Your task to perform on an android device: Open Yahoo.com Image 0: 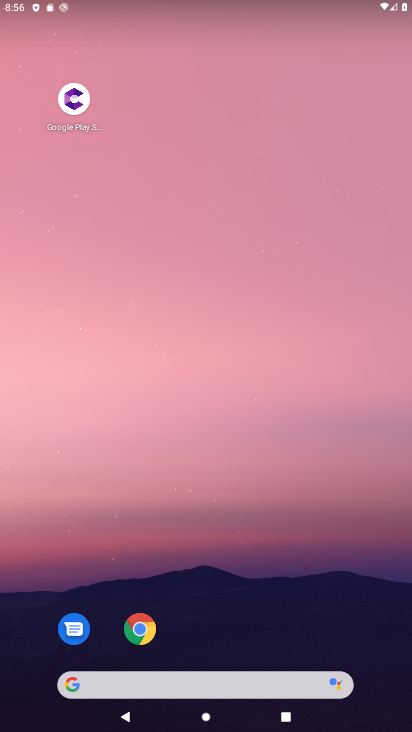
Step 0: drag from (271, 531) to (195, 29)
Your task to perform on an android device: Open Yahoo.com Image 1: 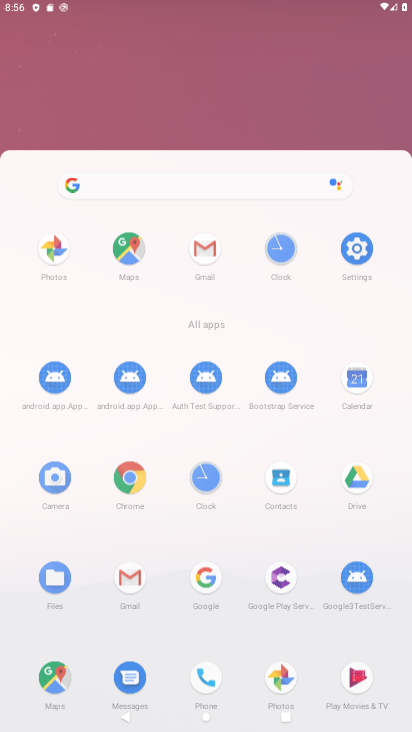
Step 1: drag from (230, 487) to (218, 142)
Your task to perform on an android device: Open Yahoo.com Image 2: 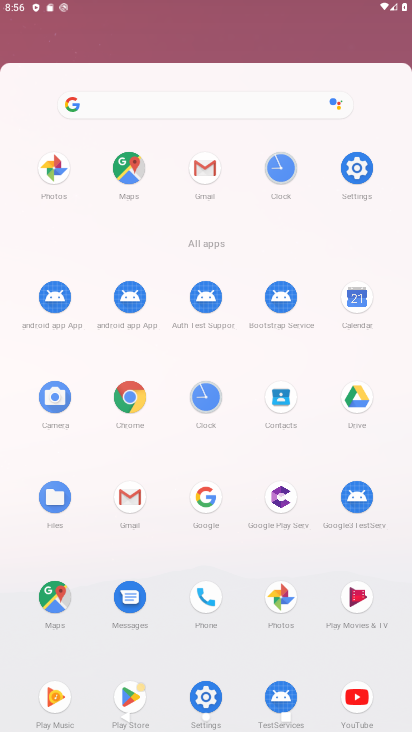
Step 2: click (191, 190)
Your task to perform on an android device: Open Yahoo.com Image 3: 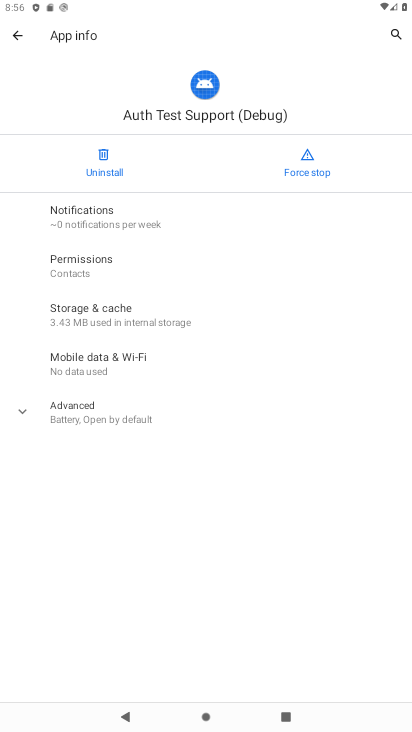
Step 3: click (16, 41)
Your task to perform on an android device: Open Yahoo.com Image 4: 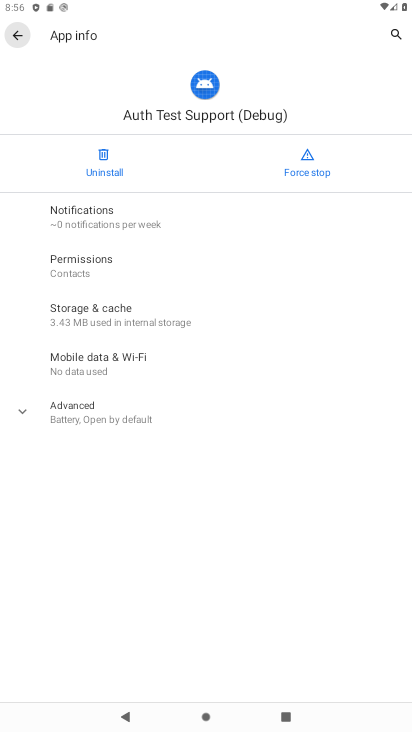
Step 4: click (29, 28)
Your task to perform on an android device: Open Yahoo.com Image 5: 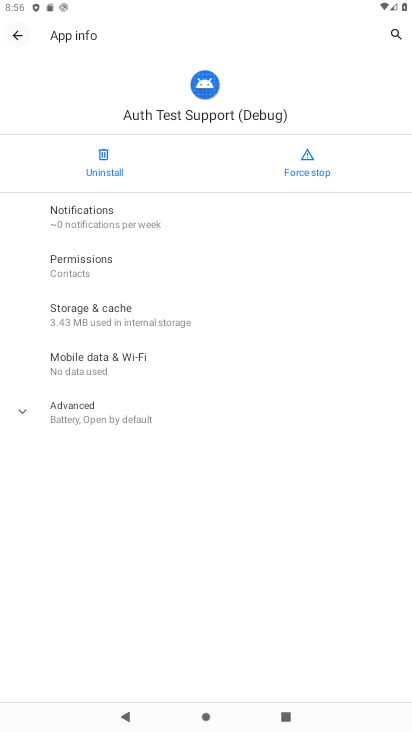
Step 5: click (29, 28)
Your task to perform on an android device: Open Yahoo.com Image 6: 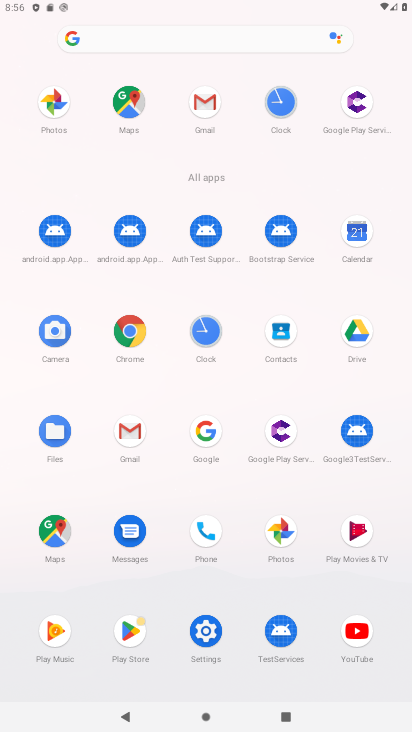
Step 6: click (131, 338)
Your task to perform on an android device: Open Yahoo.com Image 7: 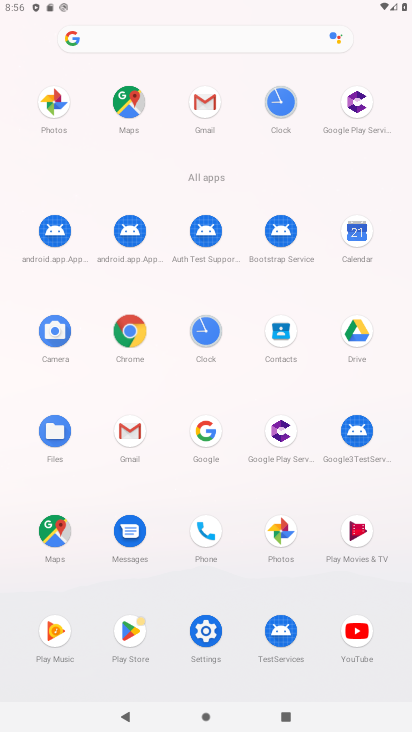
Step 7: click (131, 327)
Your task to perform on an android device: Open Yahoo.com Image 8: 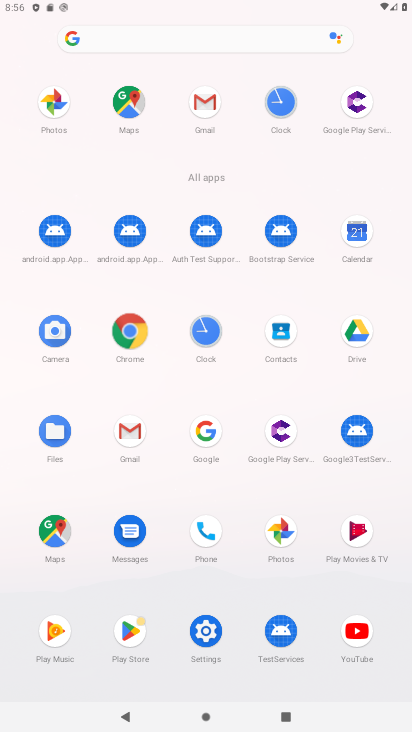
Step 8: click (132, 326)
Your task to perform on an android device: Open Yahoo.com Image 9: 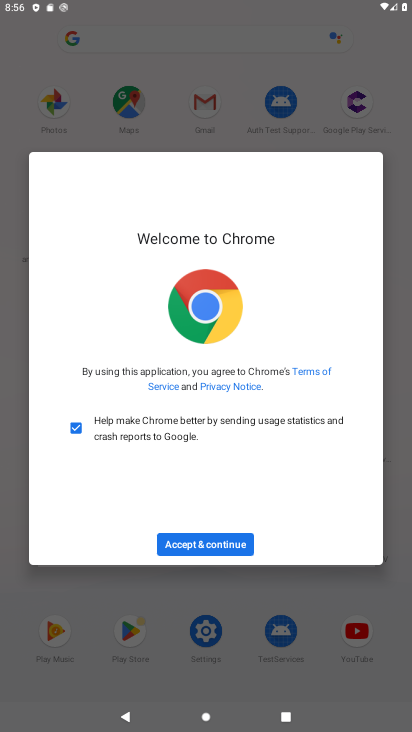
Step 9: click (187, 555)
Your task to perform on an android device: Open Yahoo.com Image 10: 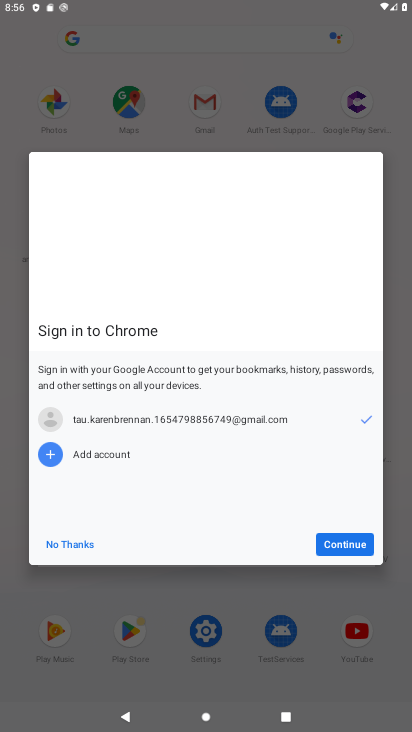
Step 10: click (84, 547)
Your task to perform on an android device: Open Yahoo.com Image 11: 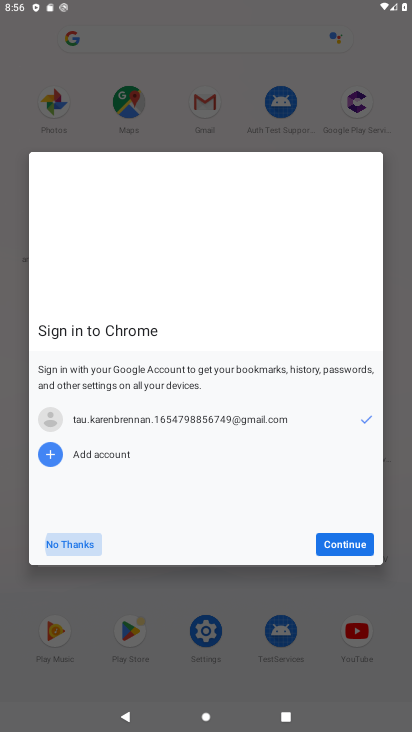
Step 11: click (69, 545)
Your task to perform on an android device: Open Yahoo.com Image 12: 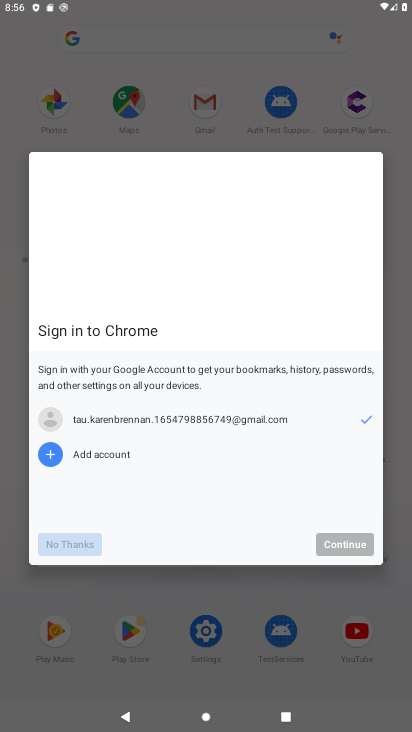
Step 12: click (65, 545)
Your task to perform on an android device: Open Yahoo.com Image 13: 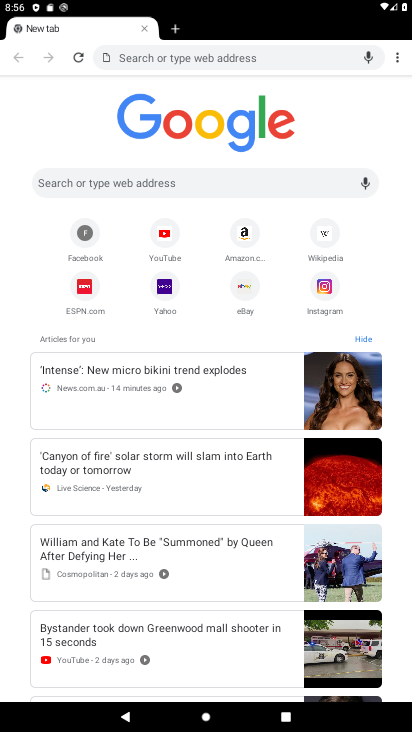
Step 13: click (149, 289)
Your task to perform on an android device: Open Yahoo.com Image 14: 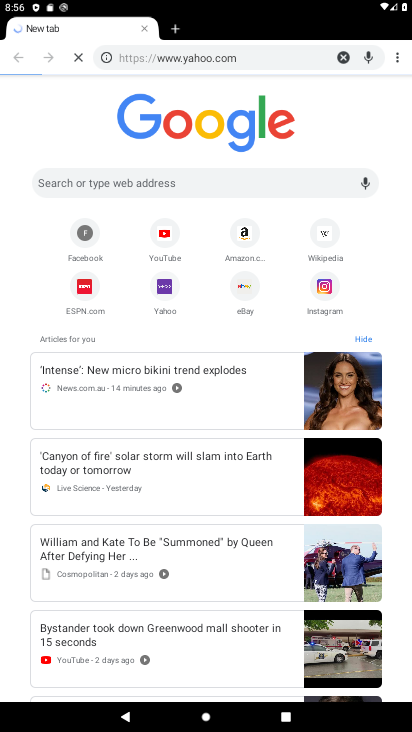
Step 14: click (159, 283)
Your task to perform on an android device: Open Yahoo.com Image 15: 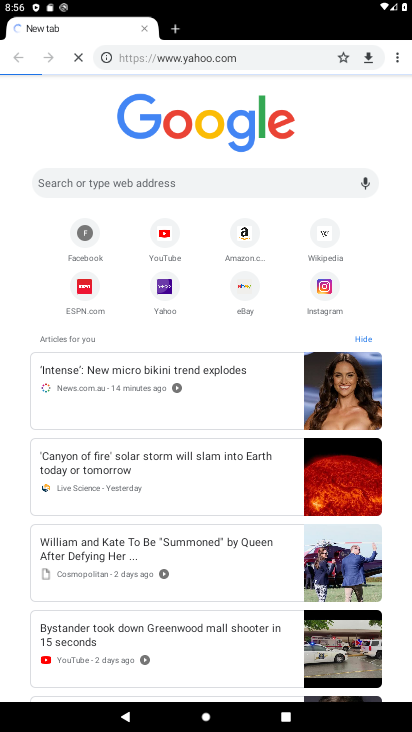
Step 15: click (159, 283)
Your task to perform on an android device: Open Yahoo.com Image 16: 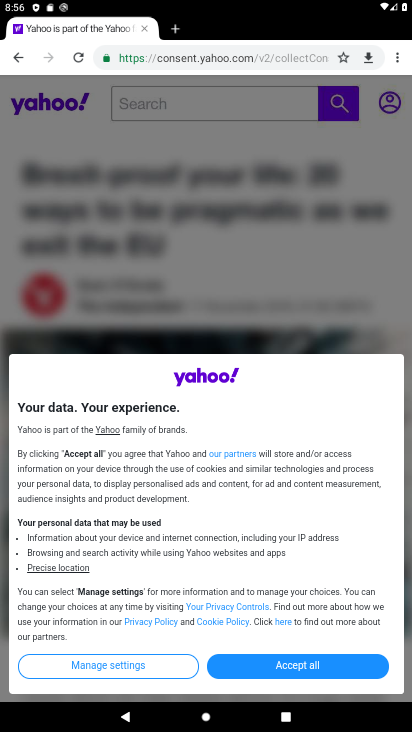
Step 16: task complete